Your task to perform on an android device: Open my contact list Image 0: 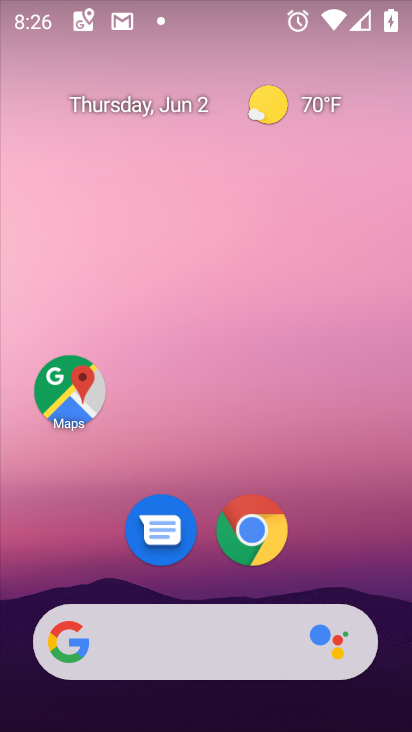
Step 0: drag from (205, 609) to (177, 271)
Your task to perform on an android device: Open my contact list Image 1: 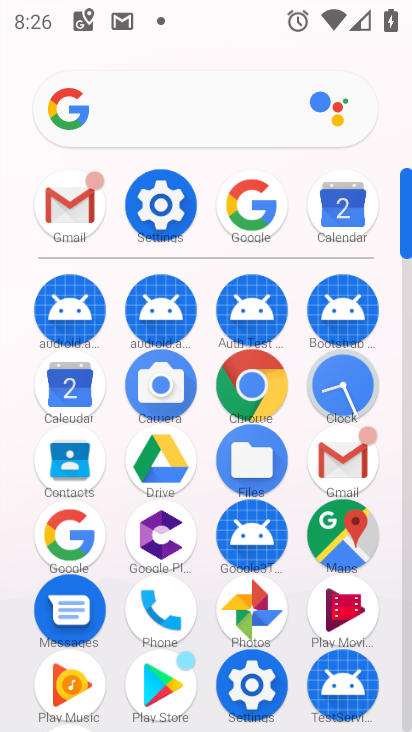
Step 1: click (70, 464)
Your task to perform on an android device: Open my contact list Image 2: 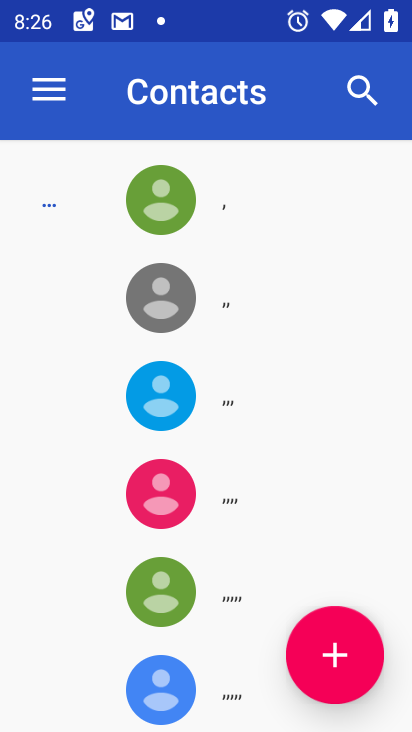
Step 2: task complete